Your task to perform on an android device: Add razer blade to the cart on walmart Image 0: 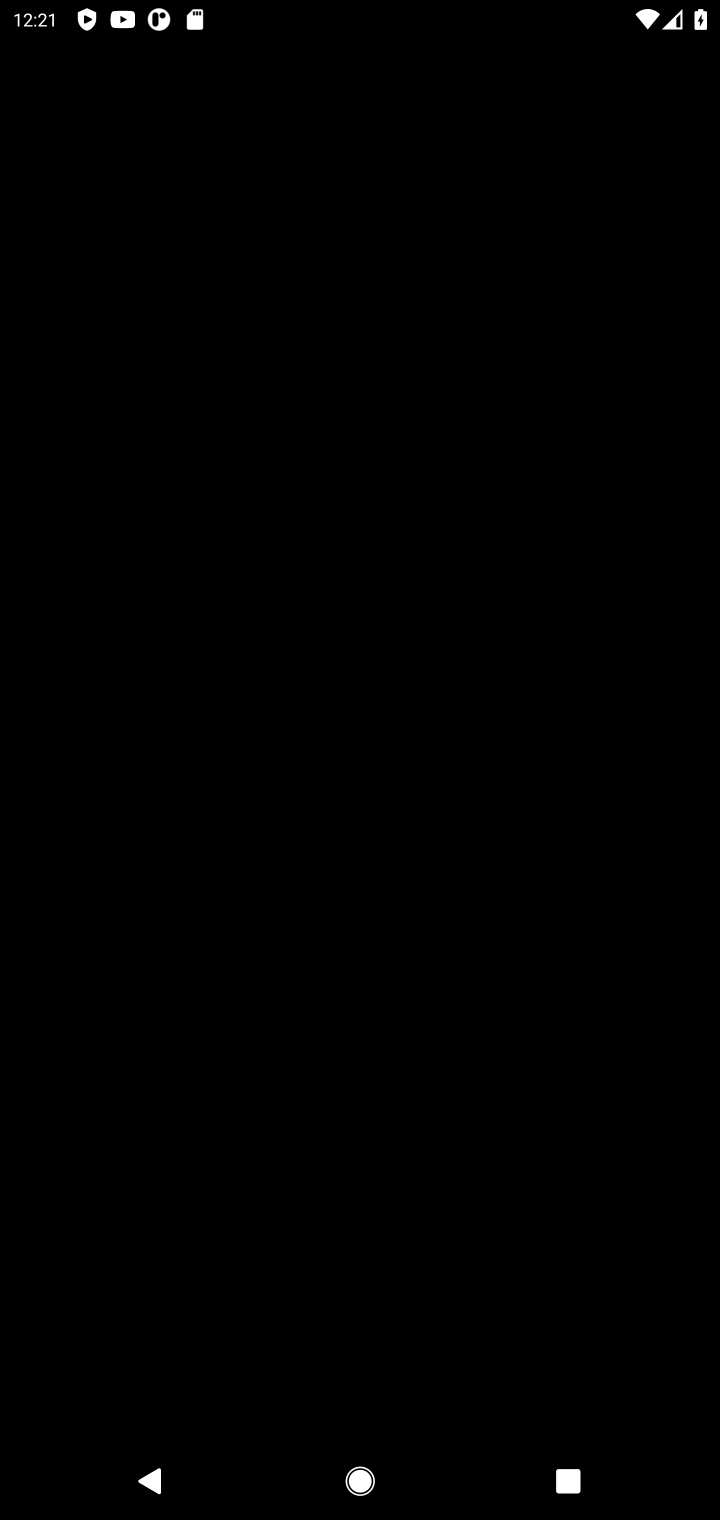
Step 0: press home button
Your task to perform on an android device: Add razer blade to the cart on walmart Image 1: 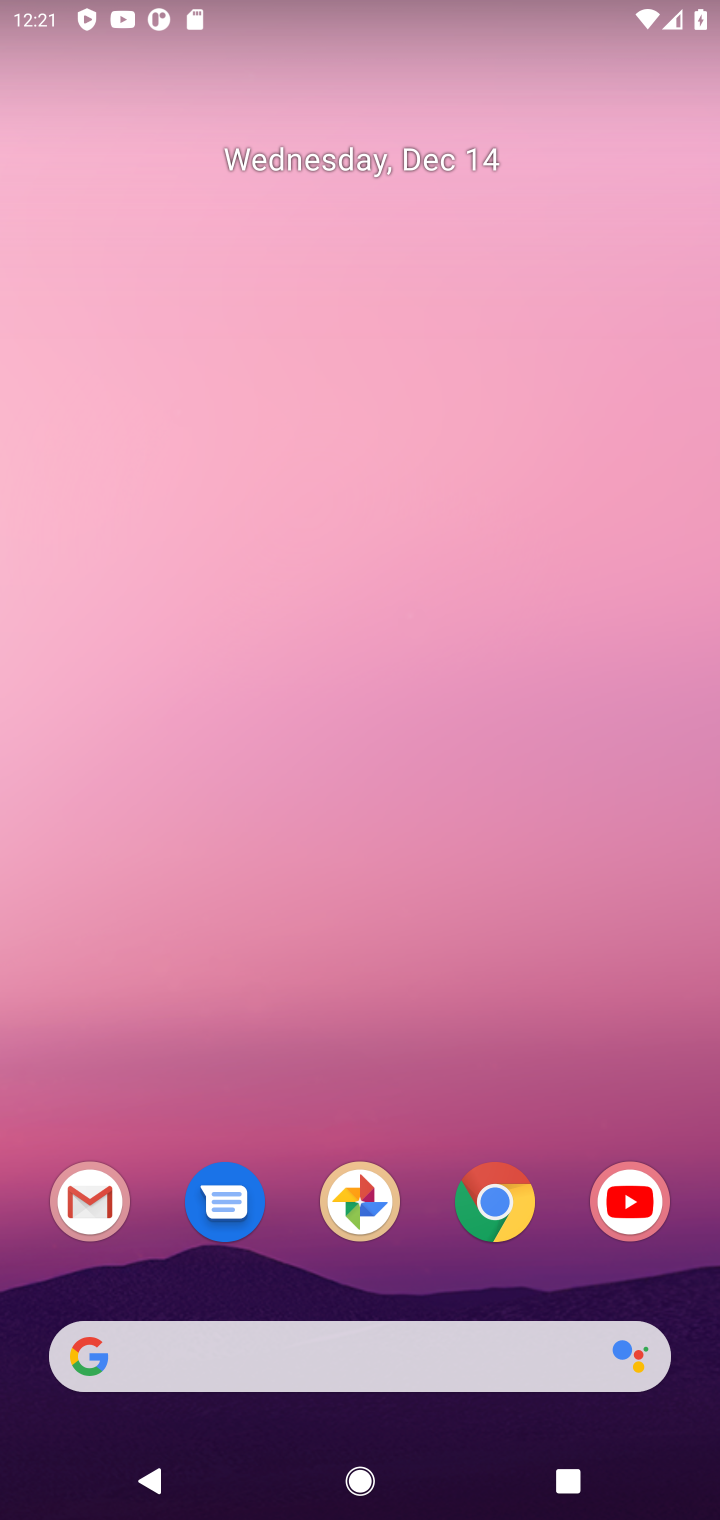
Step 1: click (508, 1214)
Your task to perform on an android device: Add razer blade to the cart on walmart Image 2: 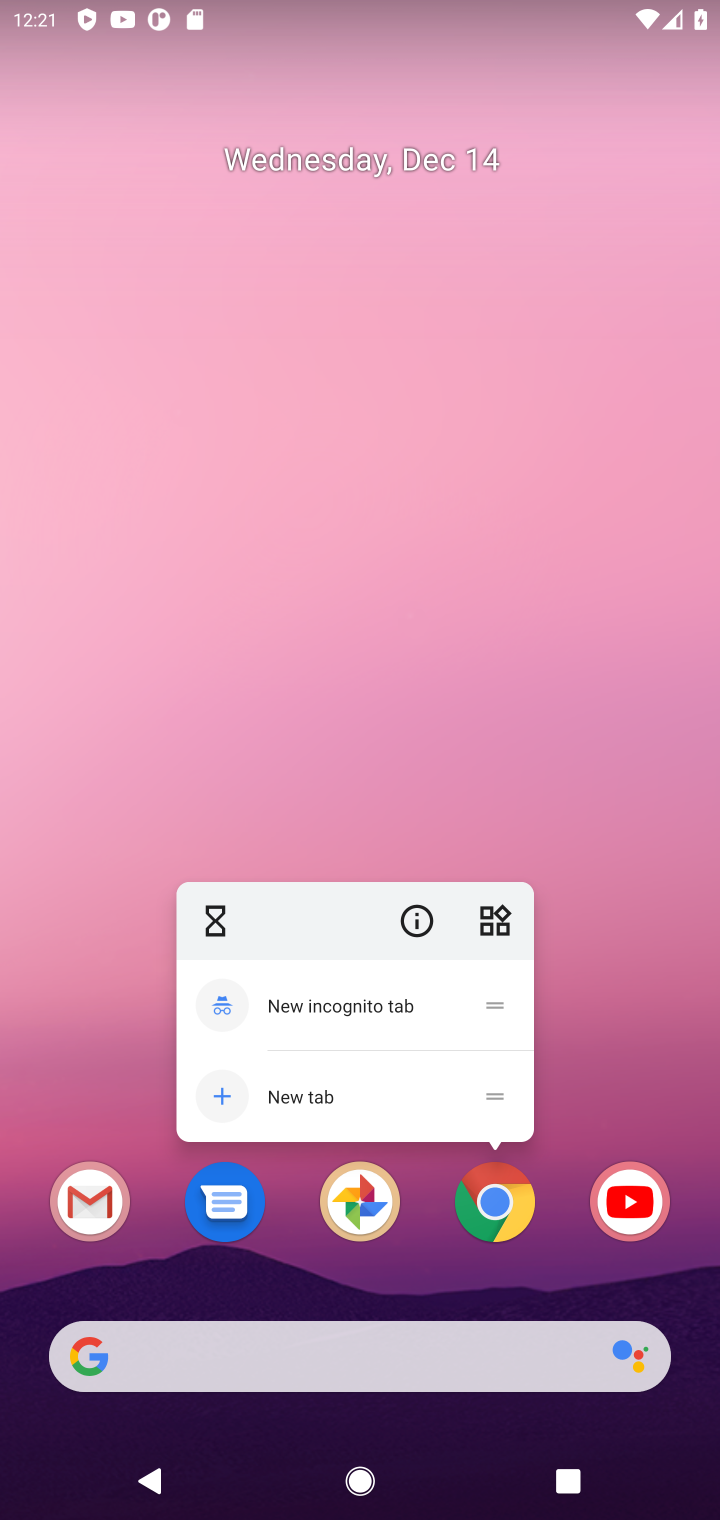
Step 2: click (508, 1214)
Your task to perform on an android device: Add razer blade to the cart on walmart Image 3: 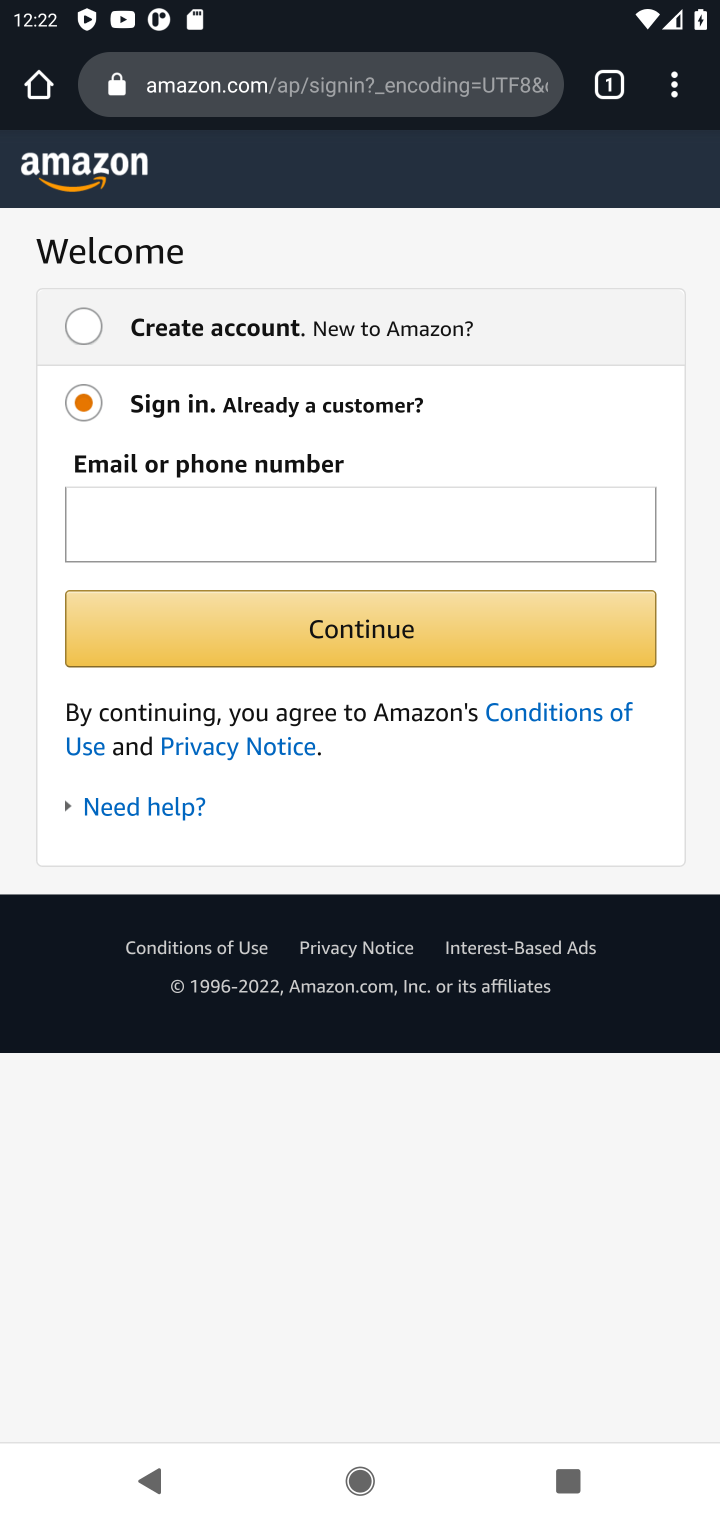
Step 3: click (354, 83)
Your task to perform on an android device: Add razer blade to the cart on walmart Image 4: 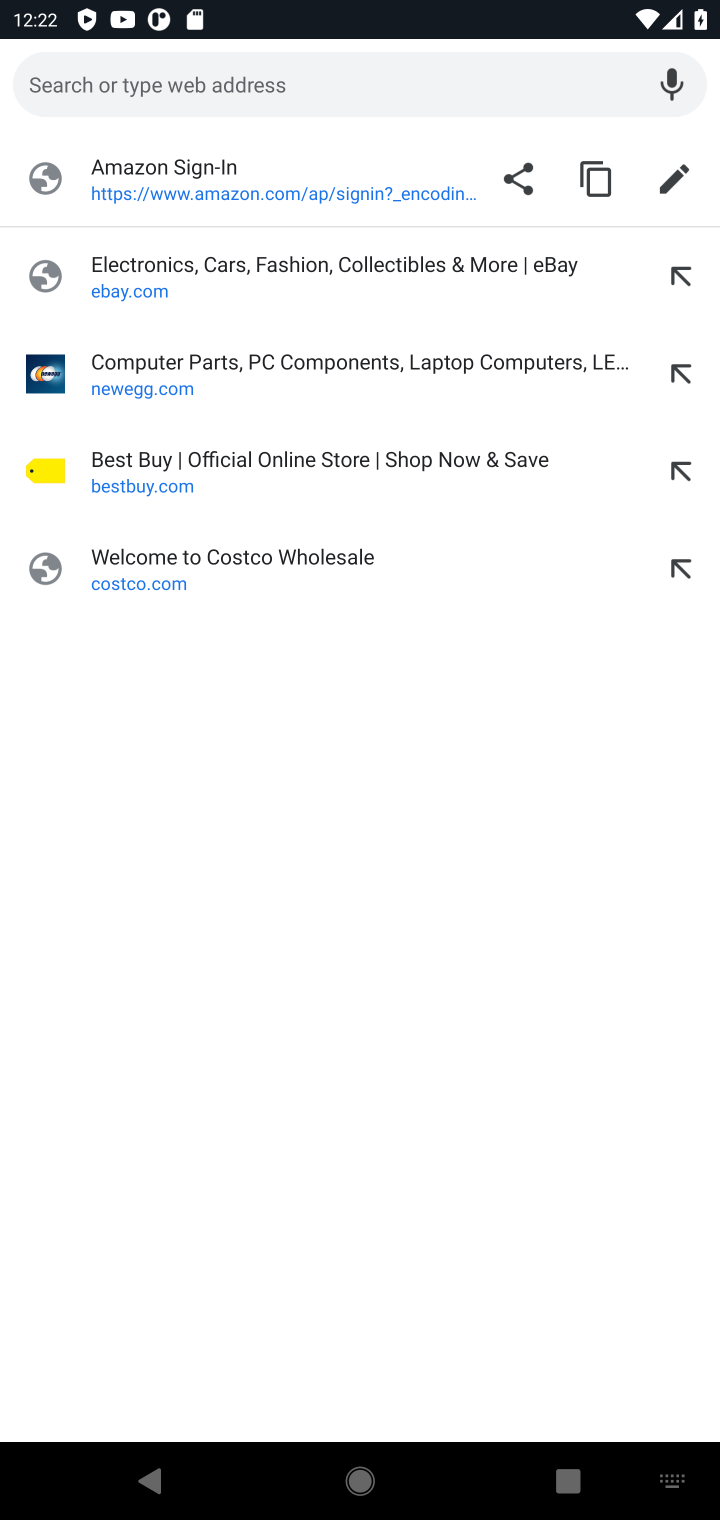
Step 4: type "walmart"
Your task to perform on an android device: Add razer blade to the cart on walmart Image 5: 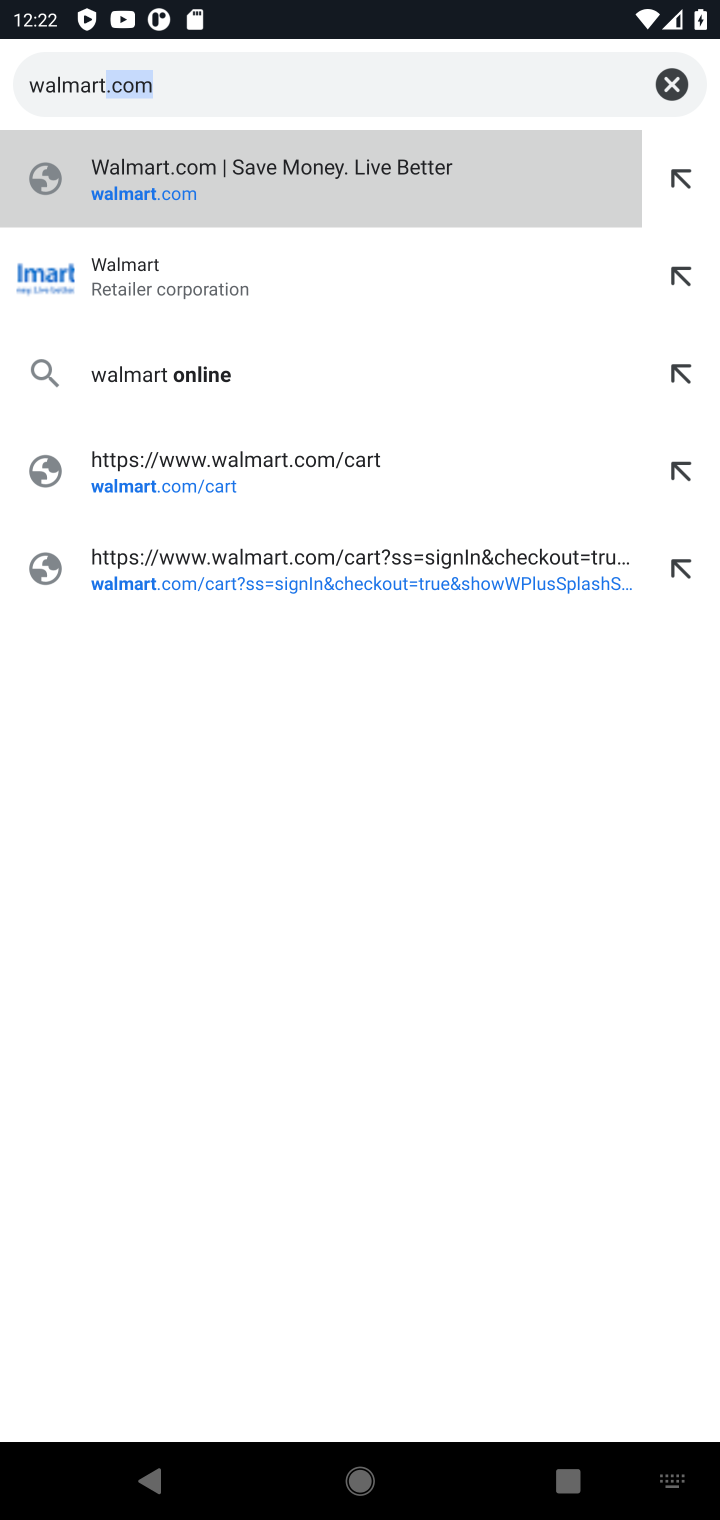
Step 5: click (295, 192)
Your task to perform on an android device: Add razer blade to the cart on walmart Image 6: 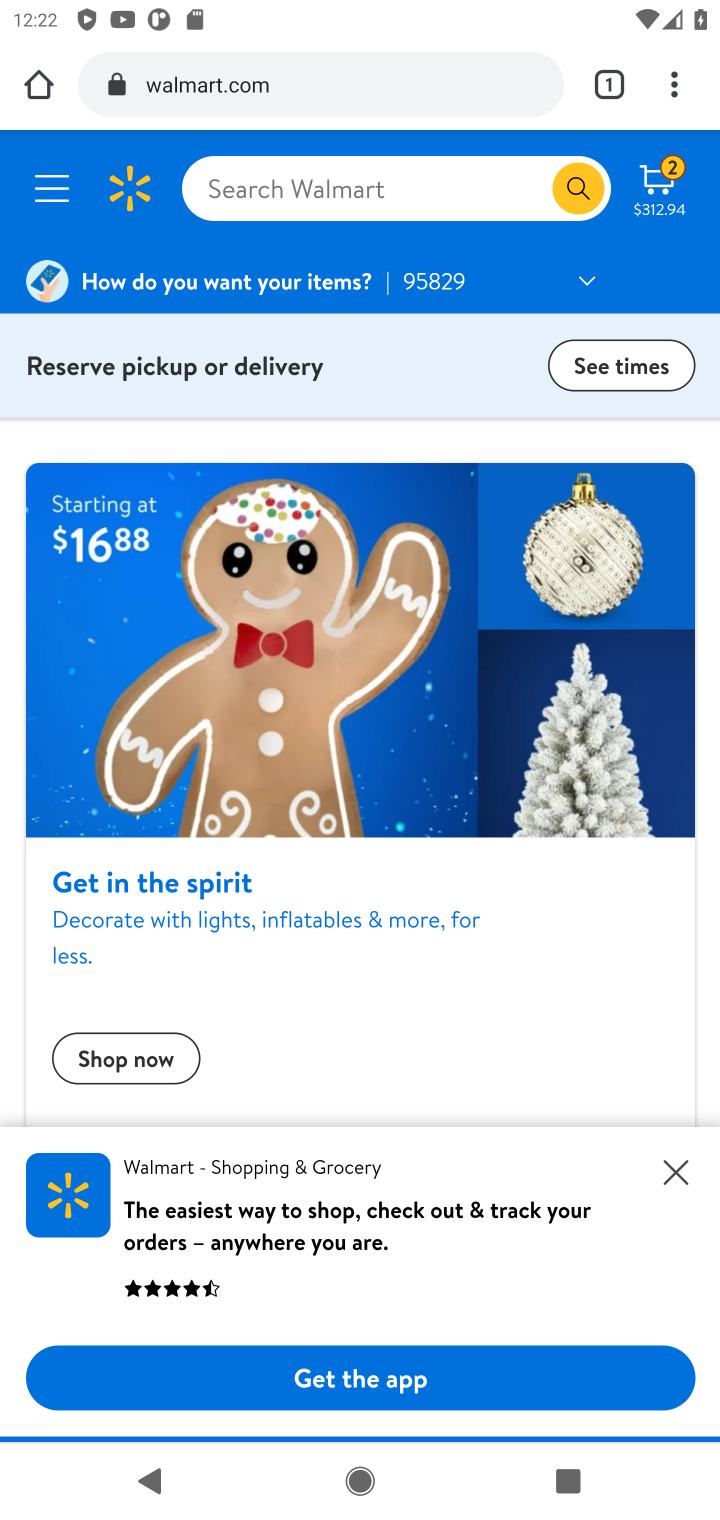
Step 6: click (309, 198)
Your task to perform on an android device: Add razer blade to the cart on walmart Image 7: 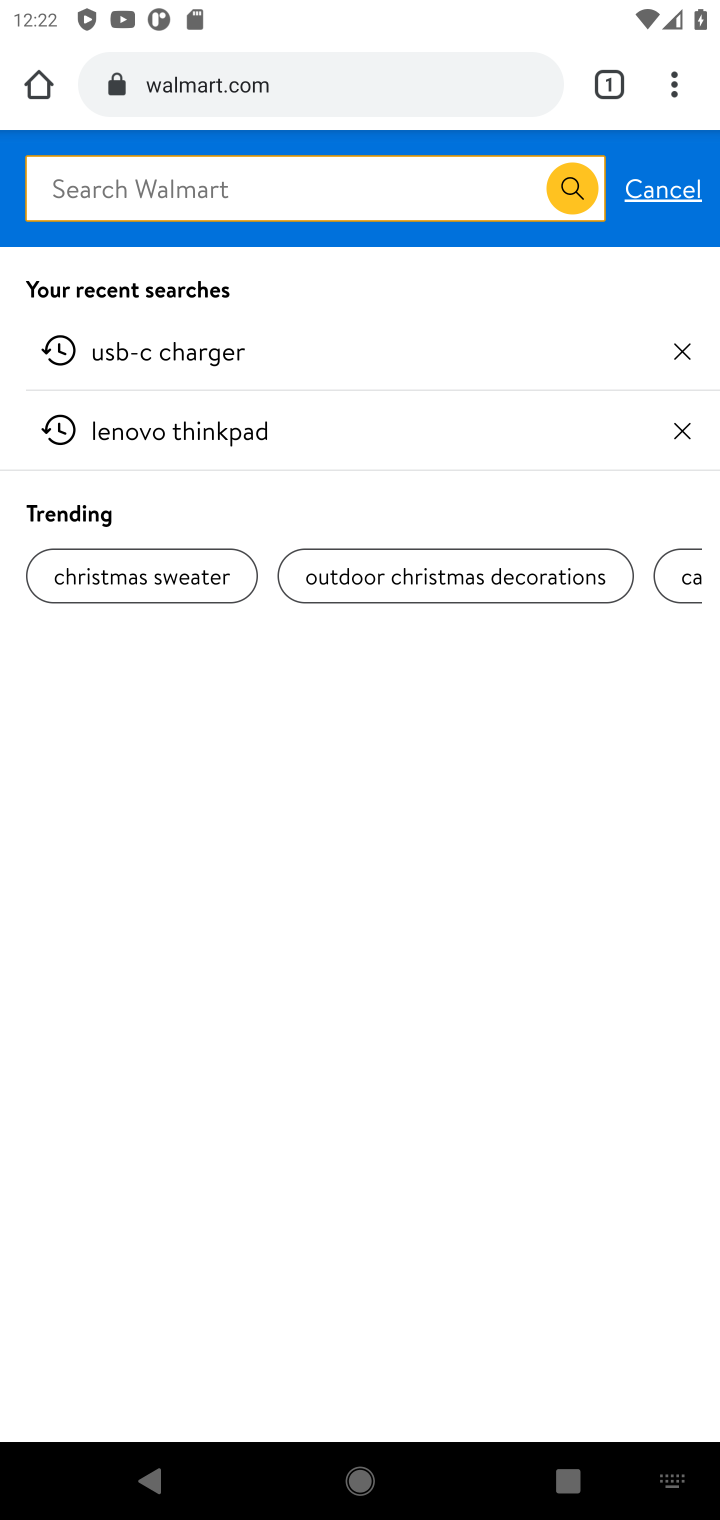
Step 7: drag from (277, 1498) to (360, 1461)
Your task to perform on an android device: Add razer blade to the cart on walmart Image 8: 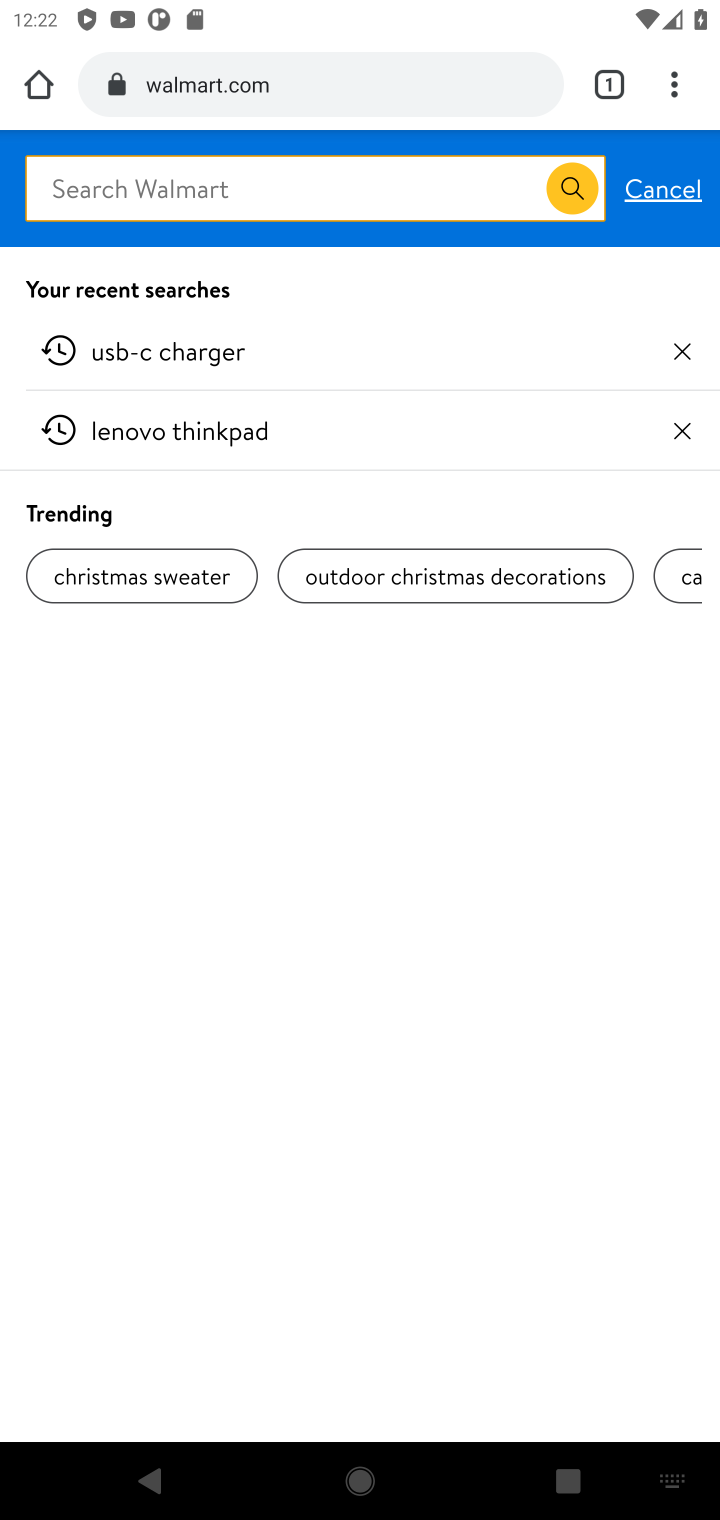
Step 8: type "razer blade"
Your task to perform on an android device: Add razer blade to the cart on walmart Image 9: 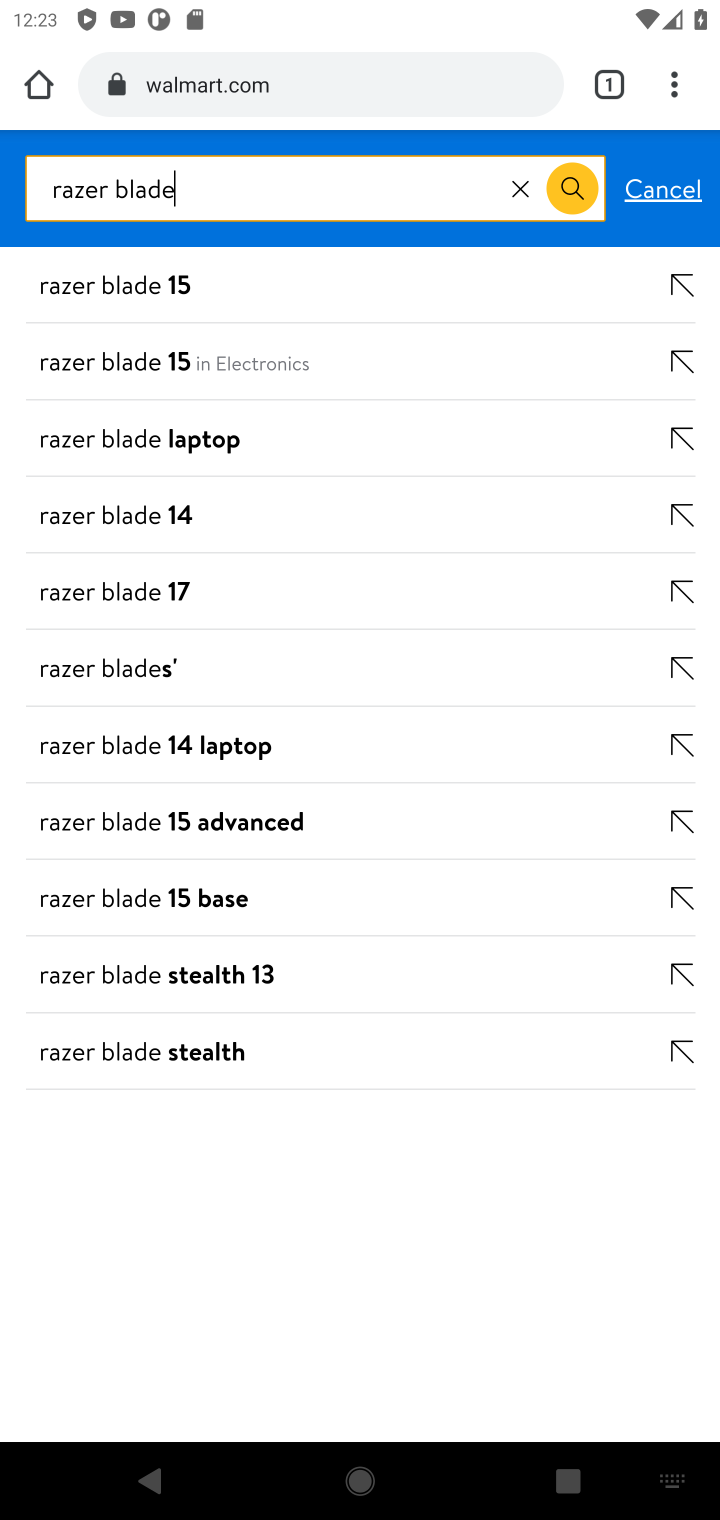
Step 9: click (98, 290)
Your task to perform on an android device: Add razer blade to the cart on walmart Image 10: 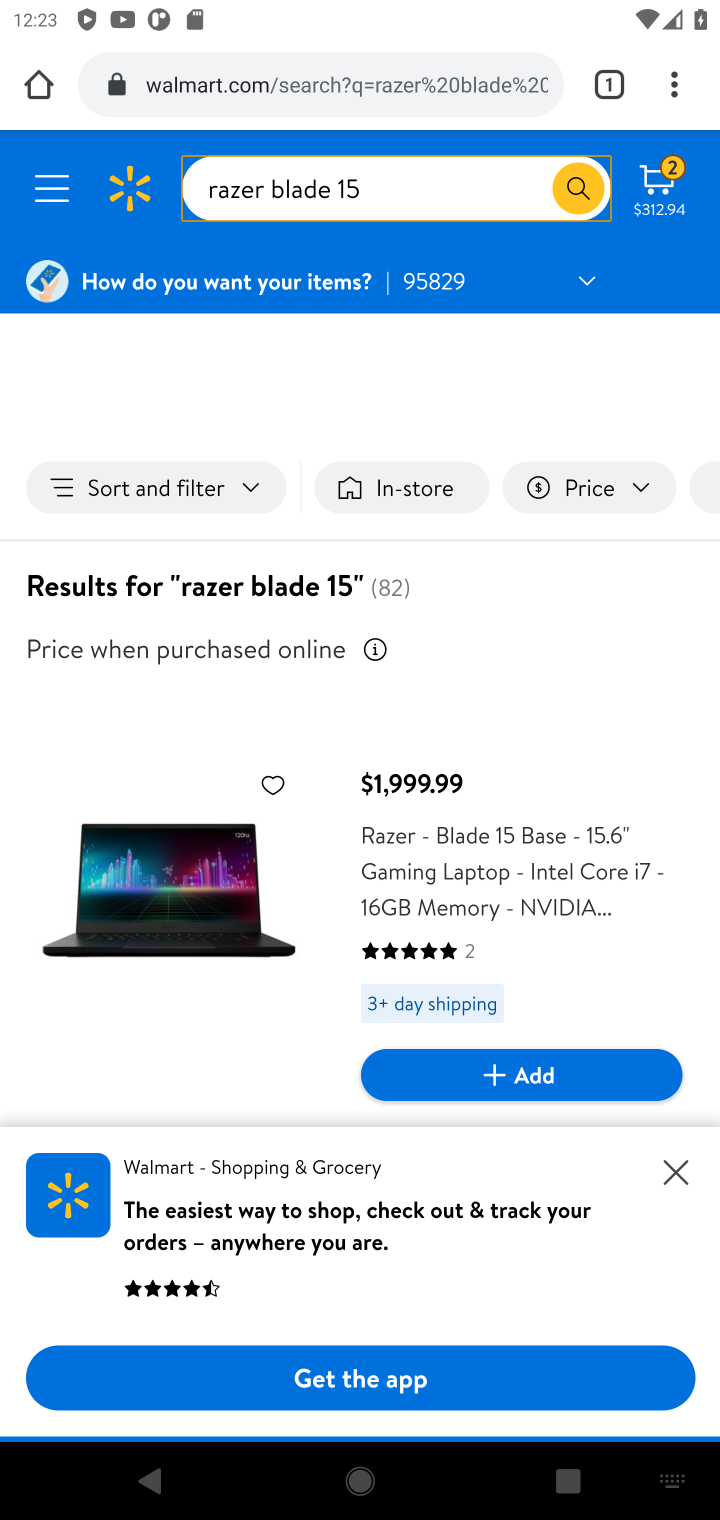
Step 10: click (677, 1171)
Your task to perform on an android device: Add razer blade to the cart on walmart Image 11: 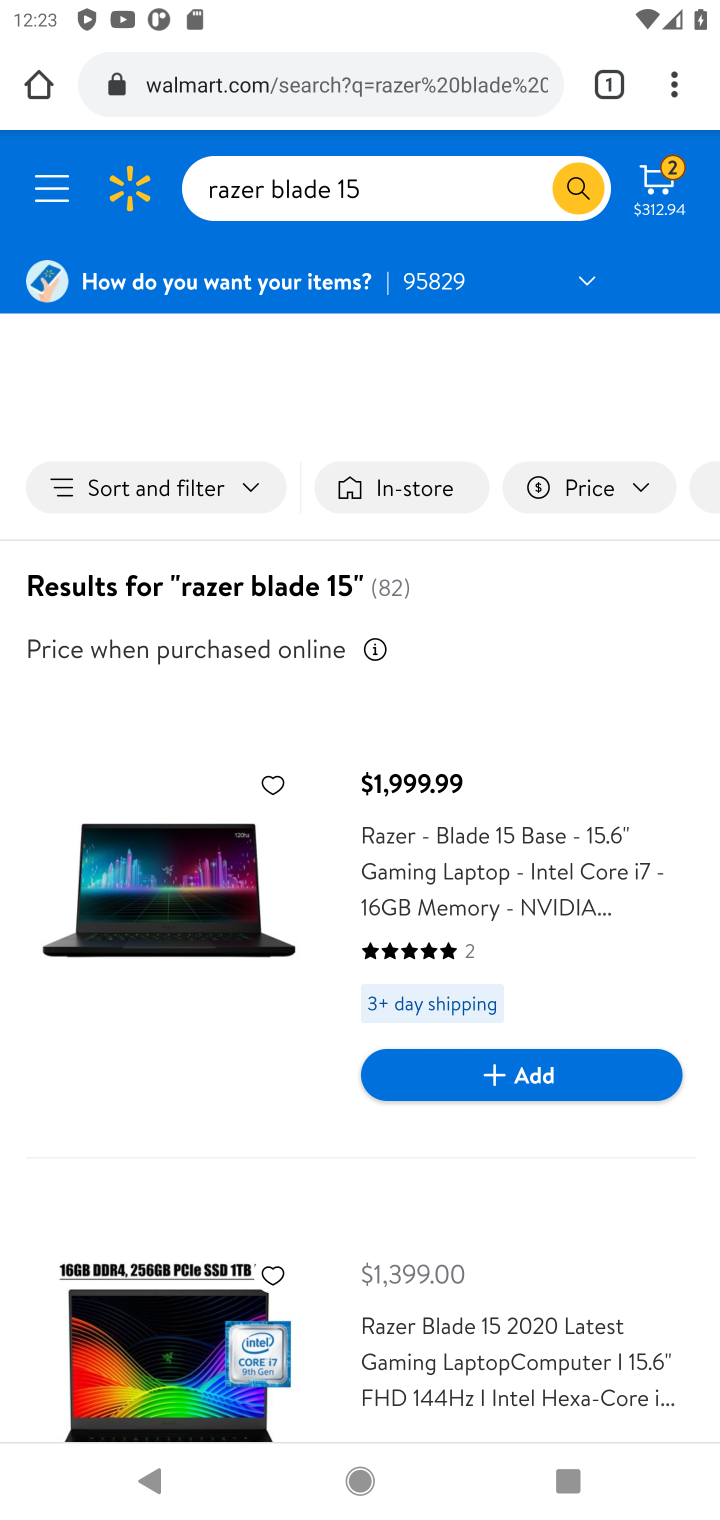
Step 11: click (557, 1080)
Your task to perform on an android device: Add razer blade to the cart on walmart Image 12: 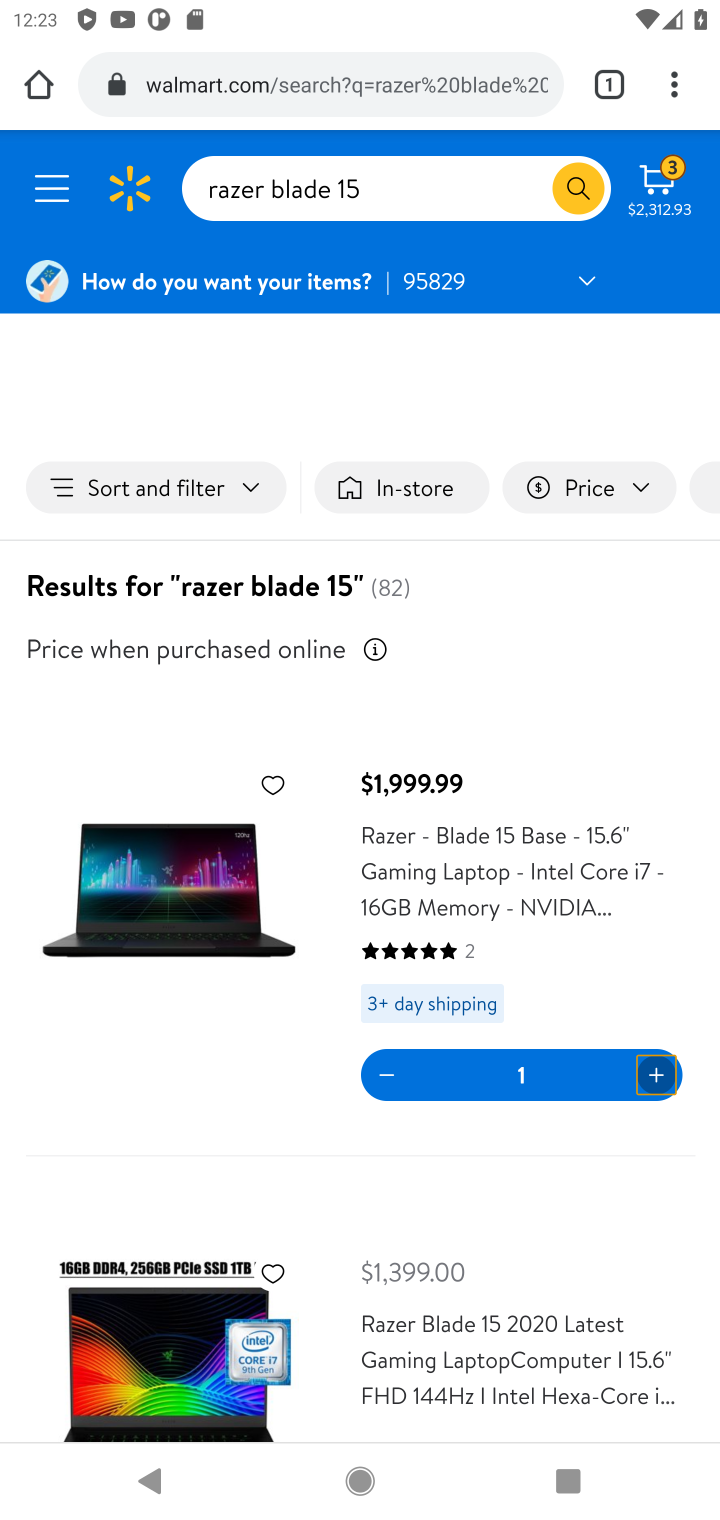
Step 12: click (670, 180)
Your task to perform on an android device: Add razer blade to the cart on walmart Image 13: 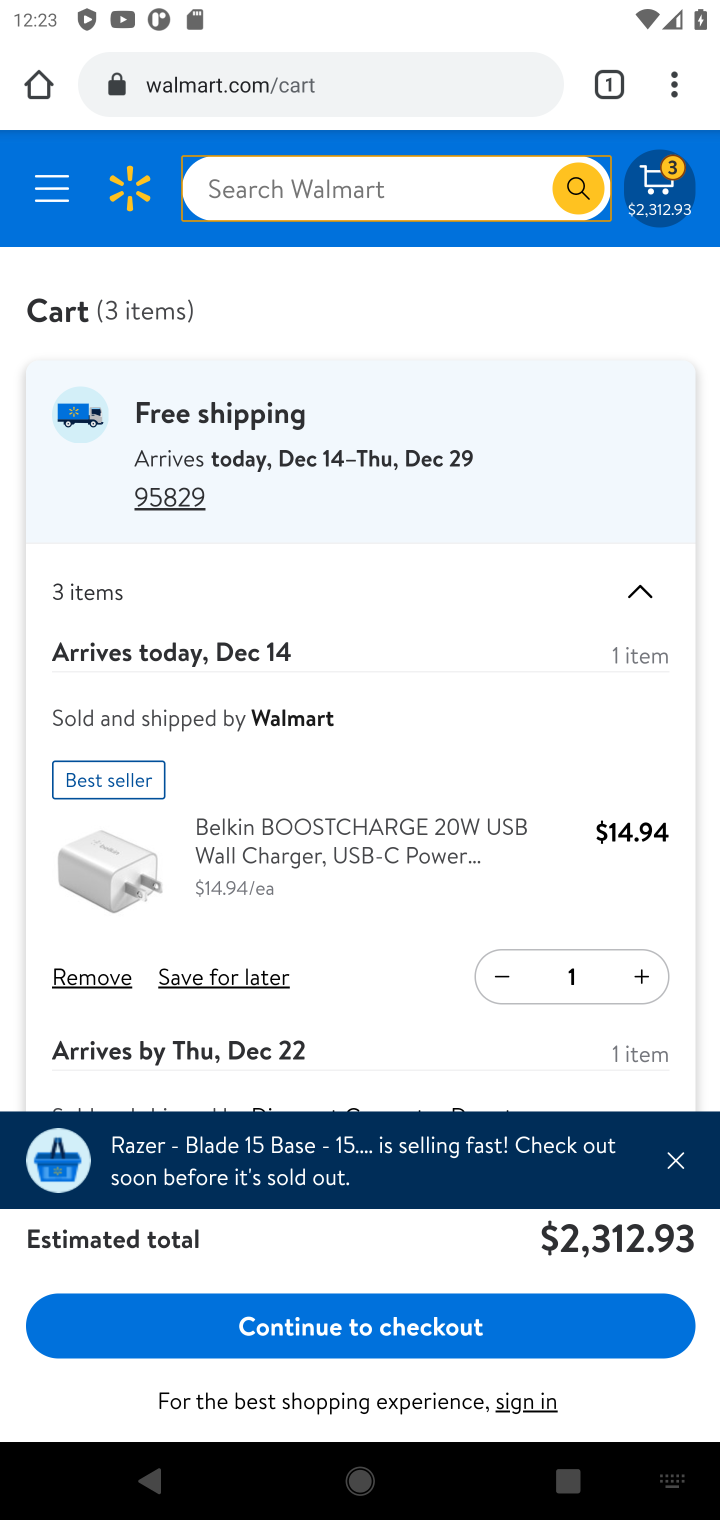
Step 13: click (398, 1326)
Your task to perform on an android device: Add razer blade to the cart on walmart Image 14: 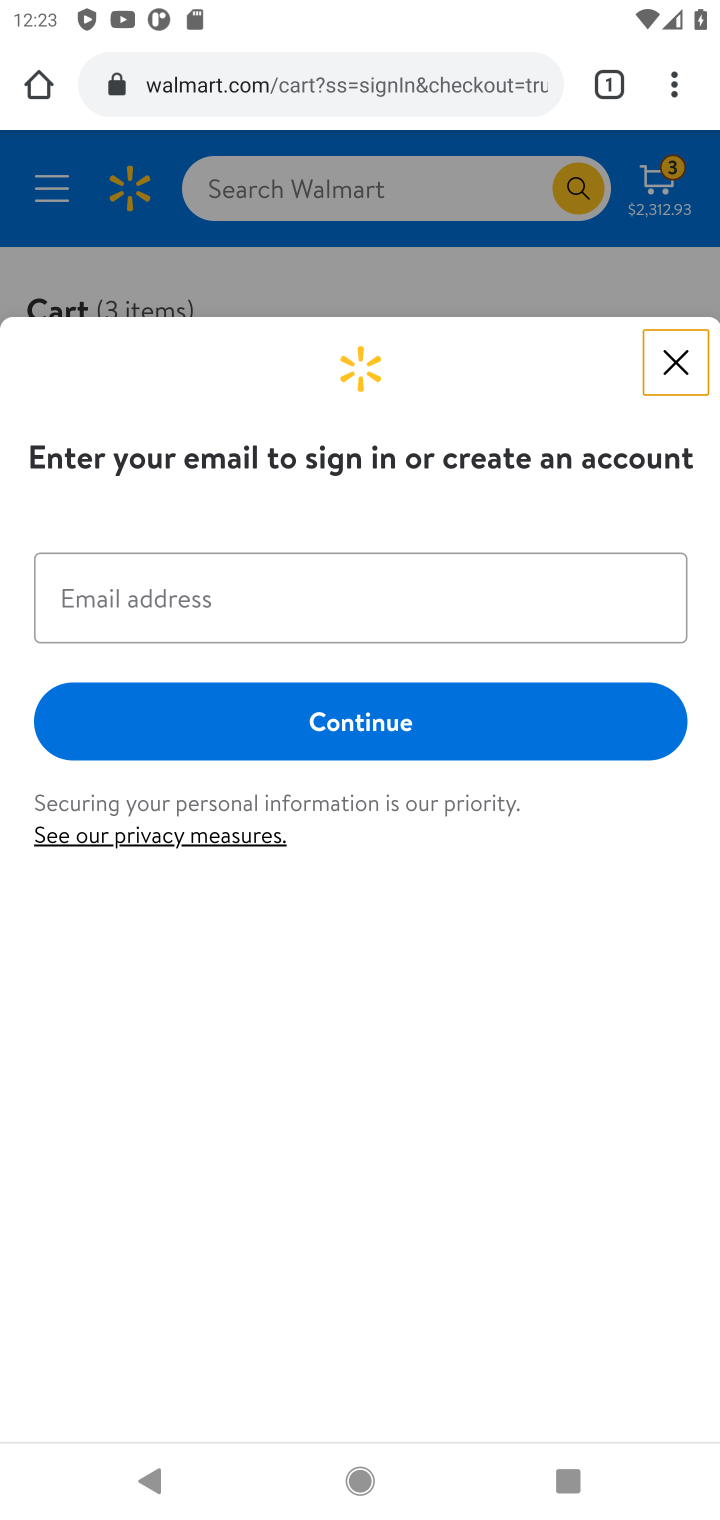
Step 14: click (695, 357)
Your task to perform on an android device: Add razer blade to the cart on walmart Image 15: 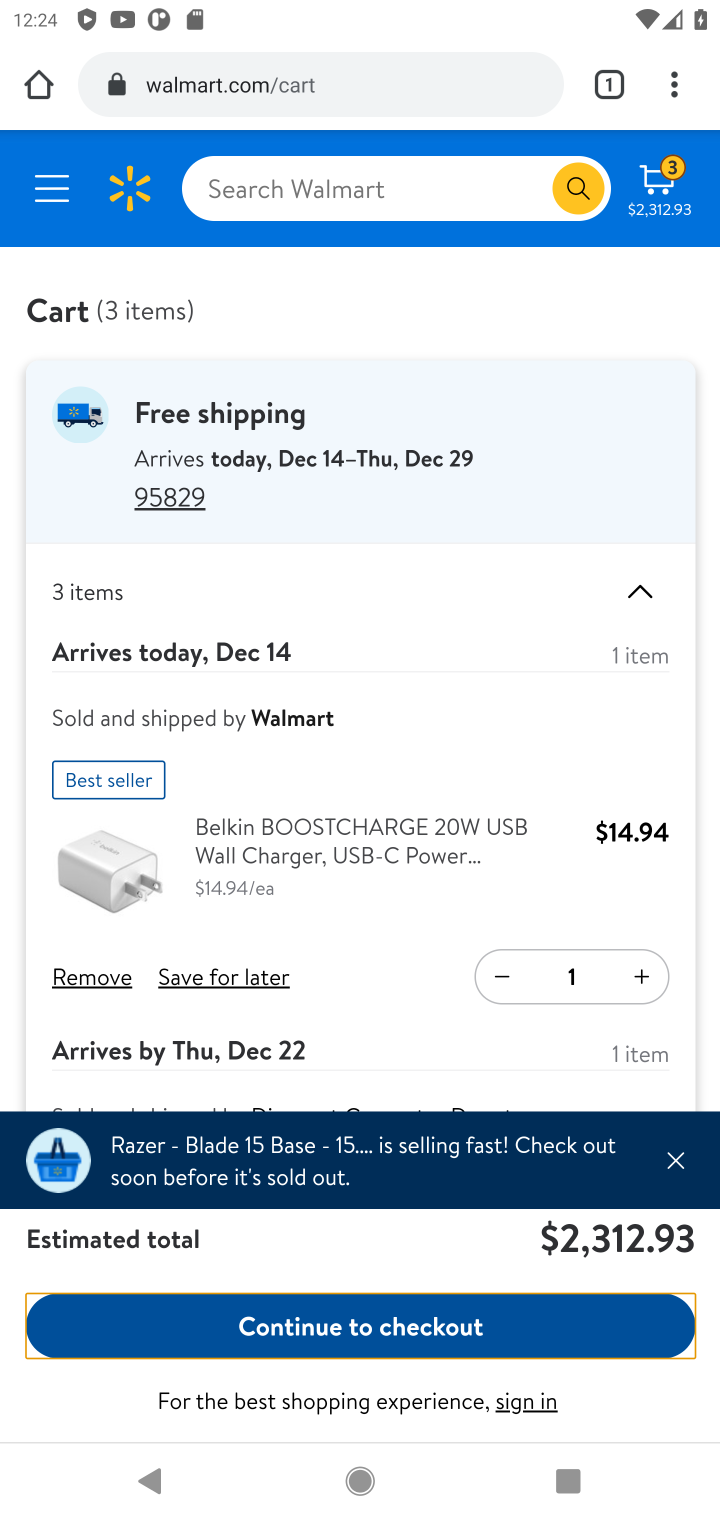
Step 15: task complete